Your task to perform on an android device: read, delete, or share a saved page in the chrome app Image 0: 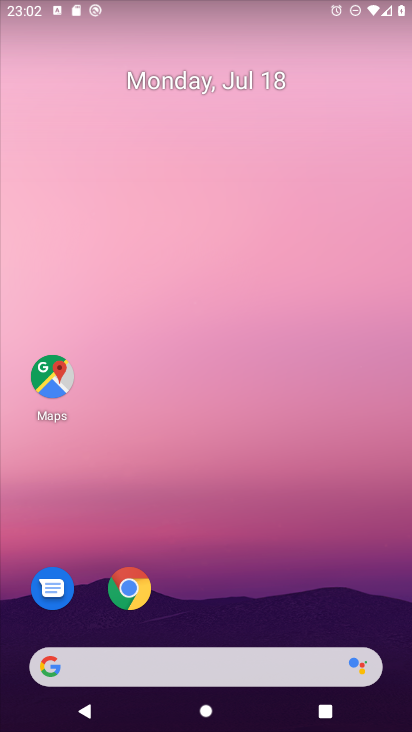
Step 0: click (129, 587)
Your task to perform on an android device: read, delete, or share a saved page in the chrome app Image 1: 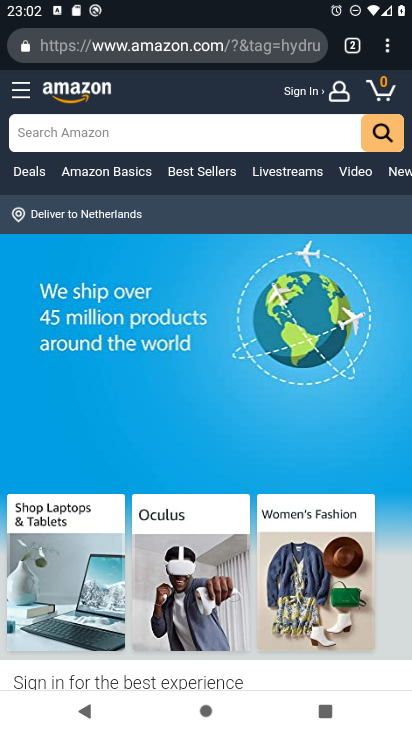
Step 1: click (387, 50)
Your task to perform on an android device: read, delete, or share a saved page in the chrome app Image 2: 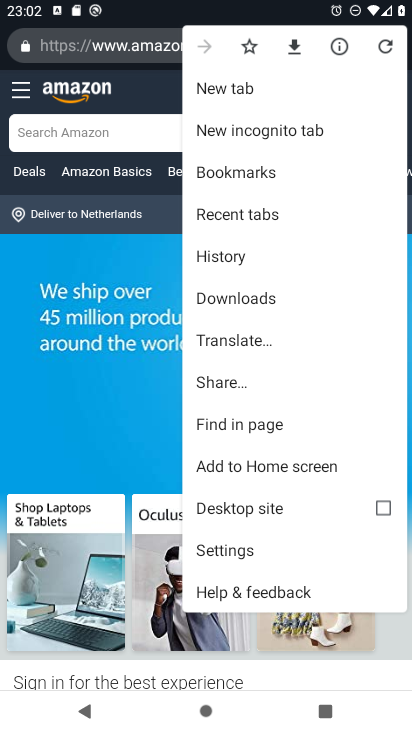
Step 2: click (235, 298)
Your task to perform on an android device: read, delete, or share a saved page in the chrome app Image 3: 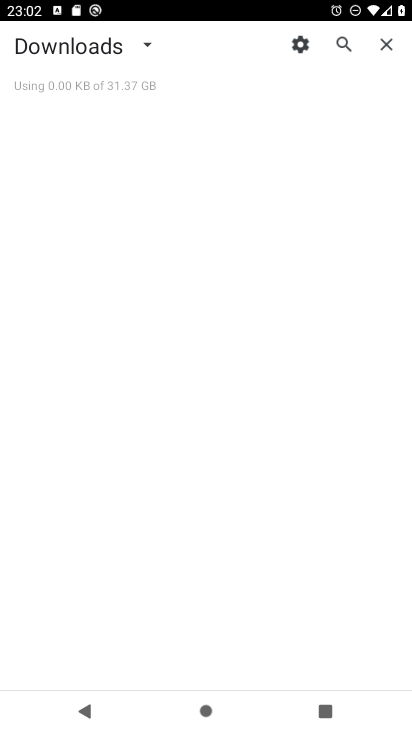
Step 3: click (145, 45)
Your task to perform on an android device: read, delete, or share a saved page in the chrome app Image 4: 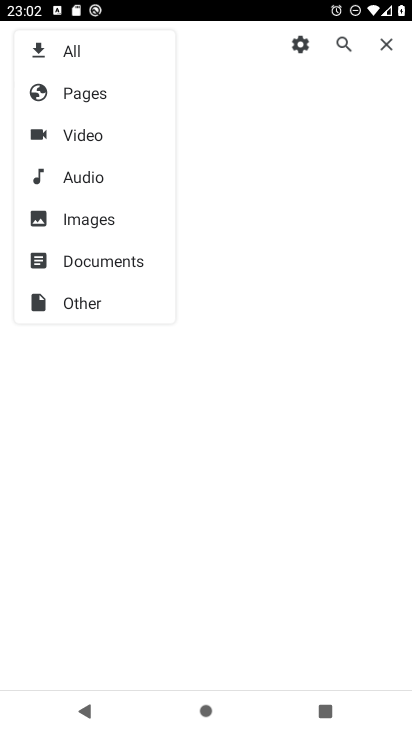
Step 4: click (85, 96)
Your task to perform on an android device: read, delete, or share a saved page in the chrome app Image 5: 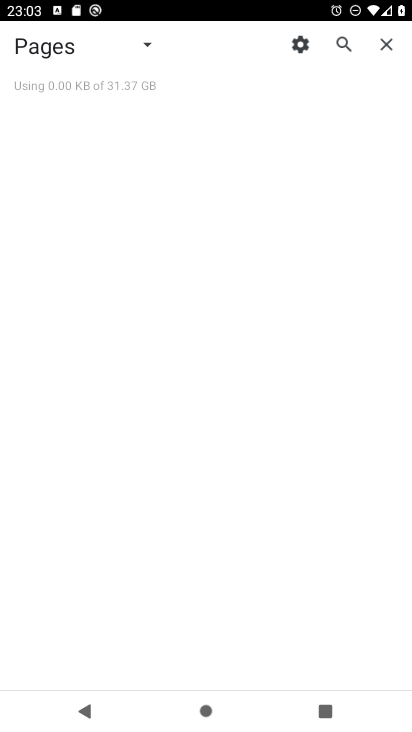
Step 5: task complete